Your task to perform on an android device: Look up the best rated bike seats on Target Image 0: 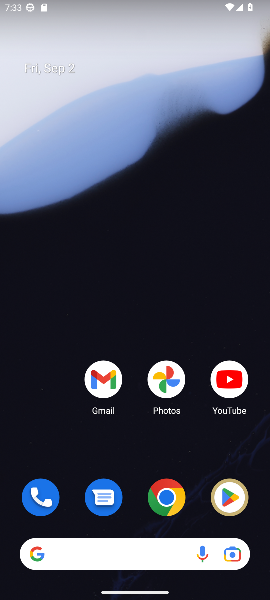
Step 0: drag from (134, 498) to (133, 121)
Your task to perform on an android device: Look up the best rated bike seats on Target Image 1: 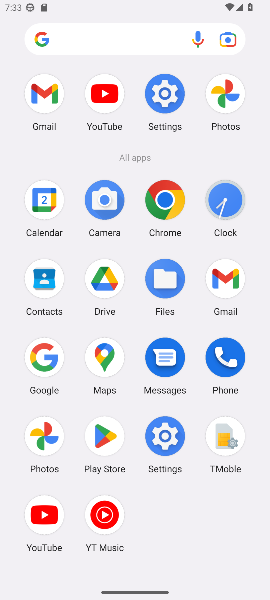
Step 1: click (47, 365)
Your task to perform on an android device: Look up the best rated bike seats on Target Image 2: 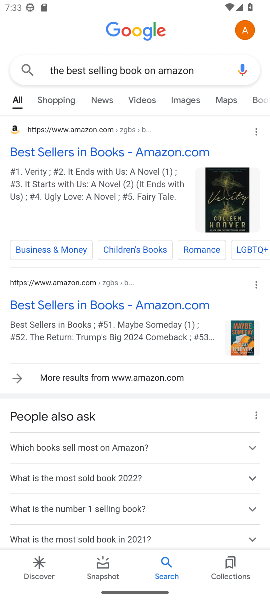
Step 2: click (211, 68)
Your task to perform on an android device: Look up the best rated bike seats on Target Image 3: 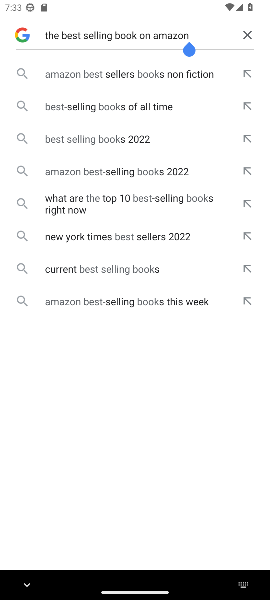
Step 3: click (247, 37)
Your task to perform on an android device: Look up the best rated bike seats on Target Image 4: 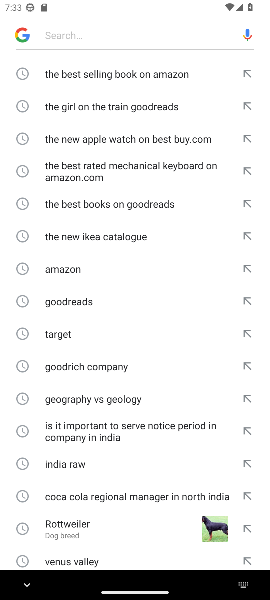
Step 4: type "the best rated bike seats on Target"
Your task to perform on an android device: Look up the best rated bike seats on Target Image 5: 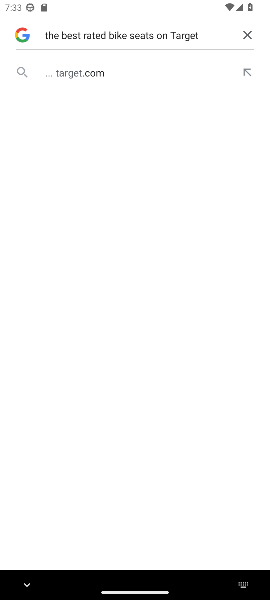
Step 5: click (90, 67)
Your task to perform on an android device: Look up the best rated bike seats on Target Image 6: 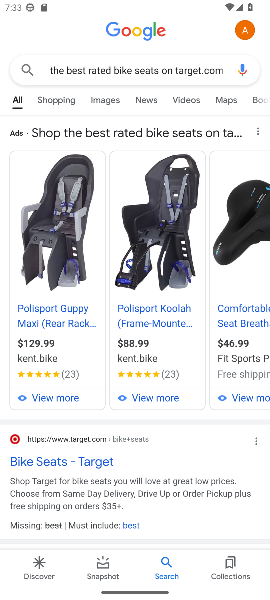
Step 6: task complete
Your task to perform on an android device: Look up the best rated bike seats on Target Image 7: 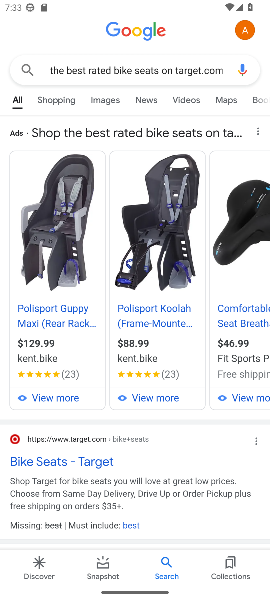
Step 7: task complete